Your task to perform on an android device: Toggle the flashlight Image 0: 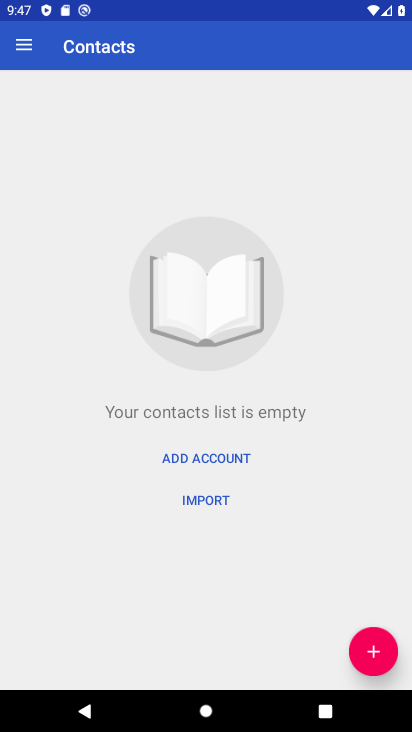
Step 0: press home button
Your task to perform on an android device: Toggle the flashlight Image 1: 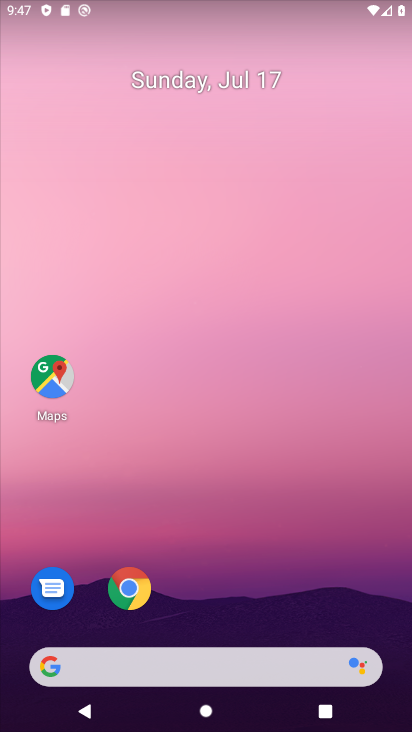
Step 1: drag from (229, 651) to (195, 64)
Your task to perform on an android device: Toggle the flashlight Image 2: 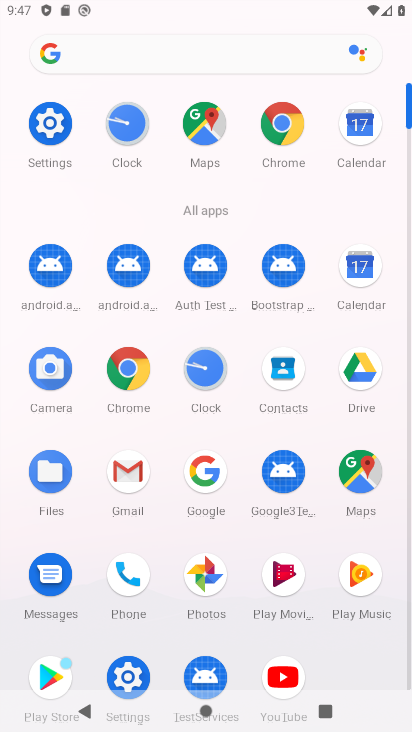
Step 2: click (34, 134)
Your task to perform on an android device: Toggle the flashlight Image 3: 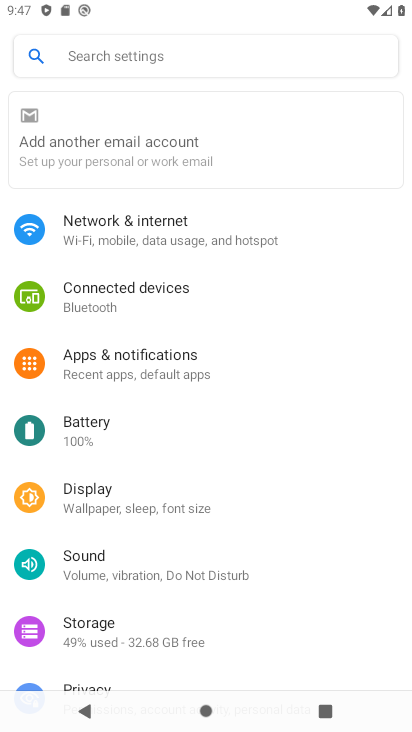
Step 3: task complete